Your task to perform on an android device: turn off airplane mode Image 0: 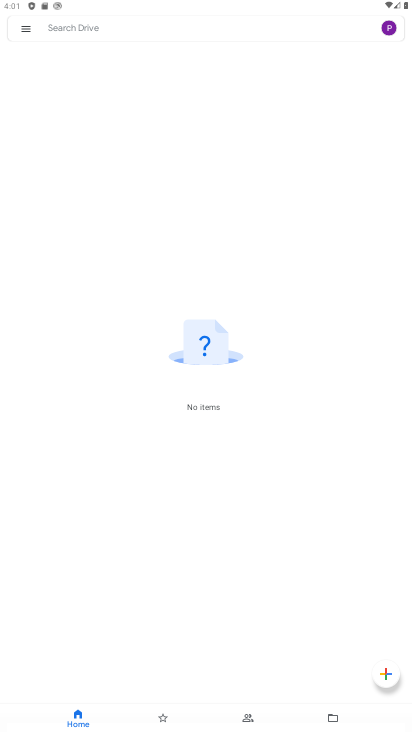
Step 0: press home button
Your task to perform on an android device: turn off airplane mode Image 1: 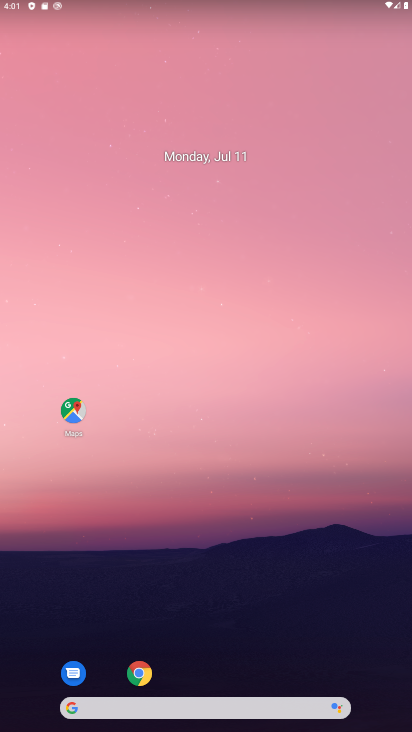
Step 1: drag from (304, 645) to (282, 29)
Your task to perform on an android device: turn off airplane mode Image 2: 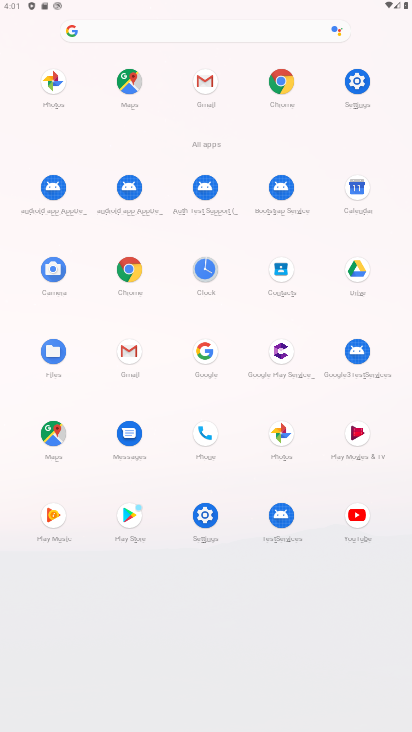
Step 2: click (363, 82)
Your task to perform on an android device: turn off airplane mode Image 3: 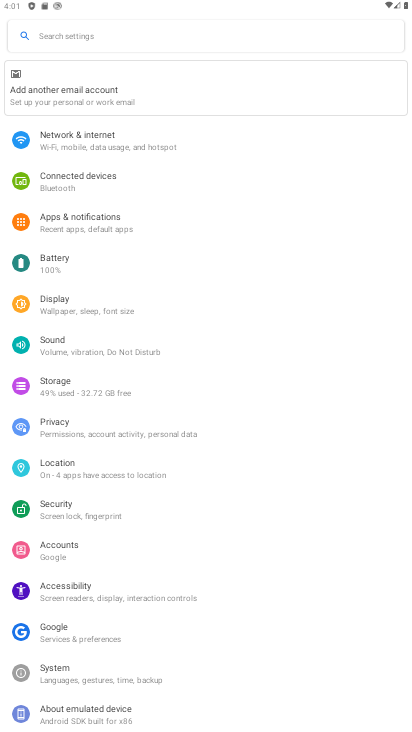
Step 3: click (126, 149)
Your task to perform on an android device: turn off airplane mode Image 4: 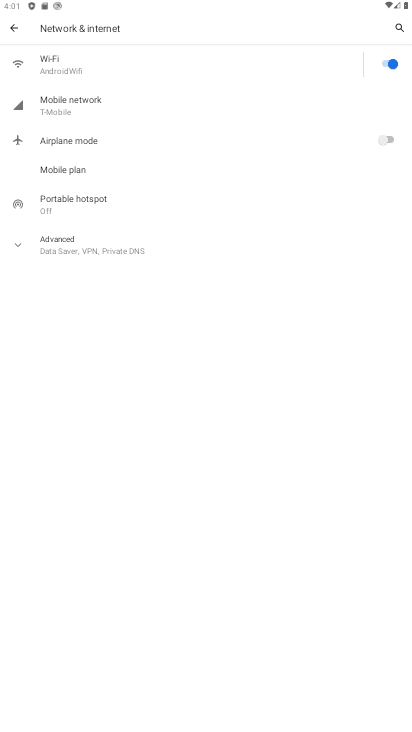
Step 4: task complete